Your task to perform on an android device: check storage Image 0: 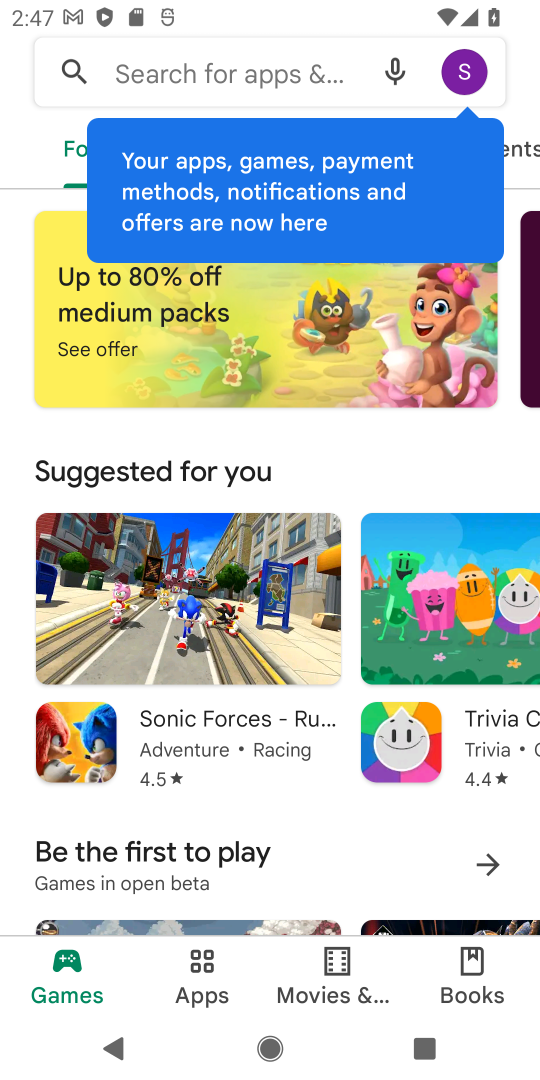
Step 0: press home button
Your task to perform on an android device: check storage Image 1: 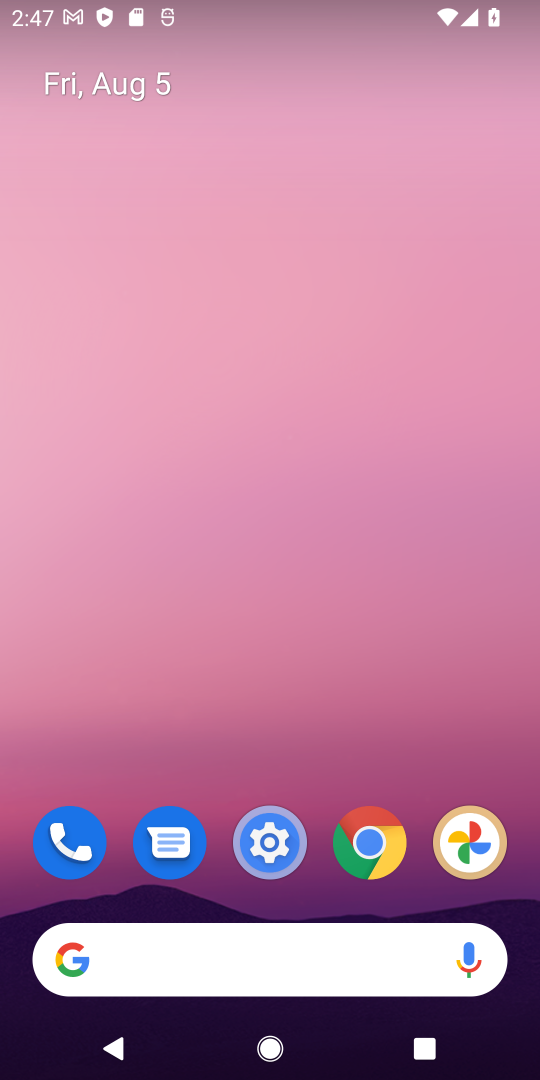
Step 1: click (272, 836)
Your task to perform on an android device: check storage Image 2: 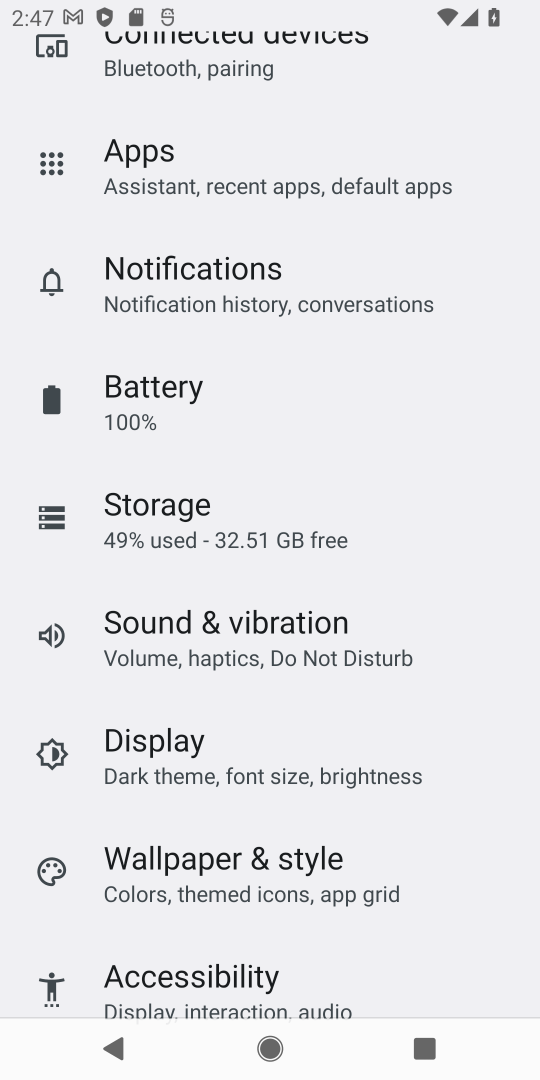
Step 2: click (277, 523)
Your task to perform on an android device: check storage Image 3: 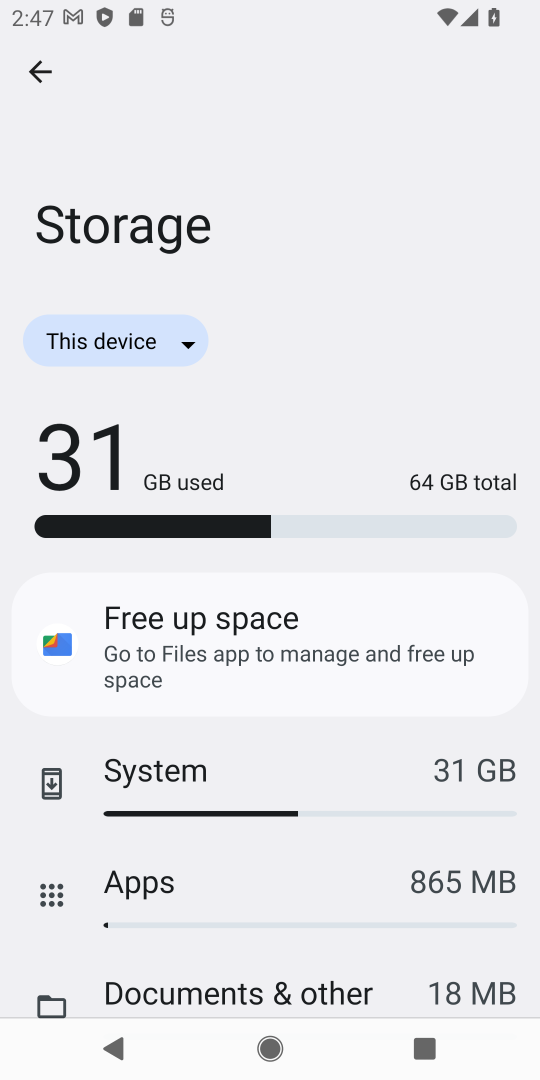
Step 3: task complete